Your task to perform on an android device: turn on javascript in the chrome app Image 0: 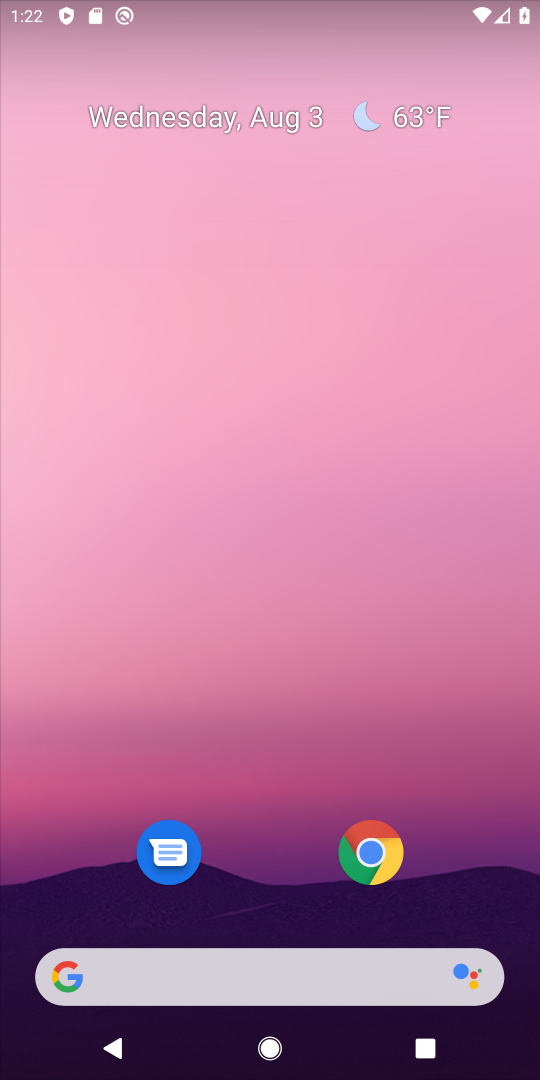
Step 0: press home button
Your task to perform on an android device: turn on javascript in the chrome app Image 1: 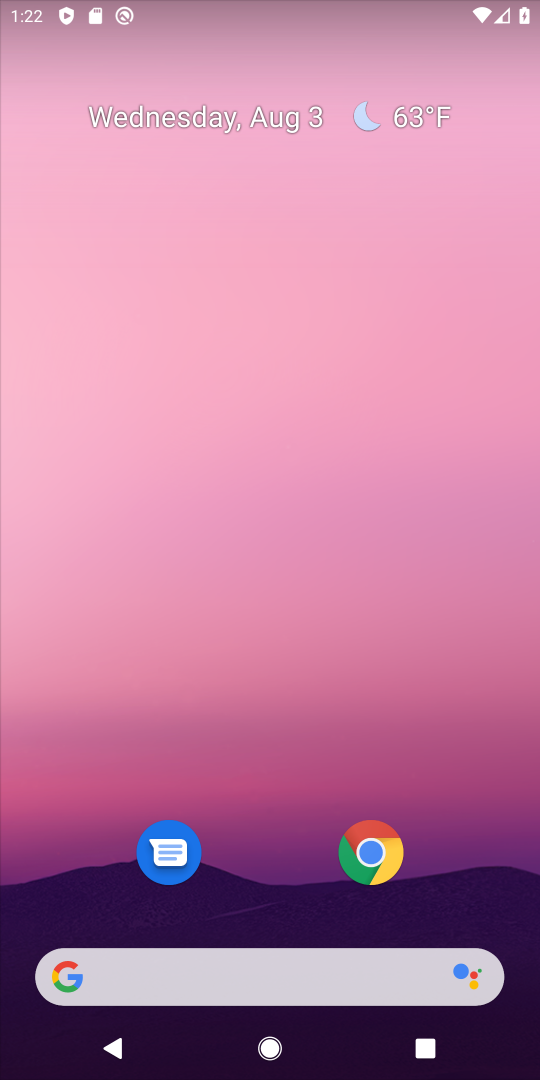
Step 1: click (375, 849)
Your task to perform on an android device: turn on javascript in the chrome app Image 2: 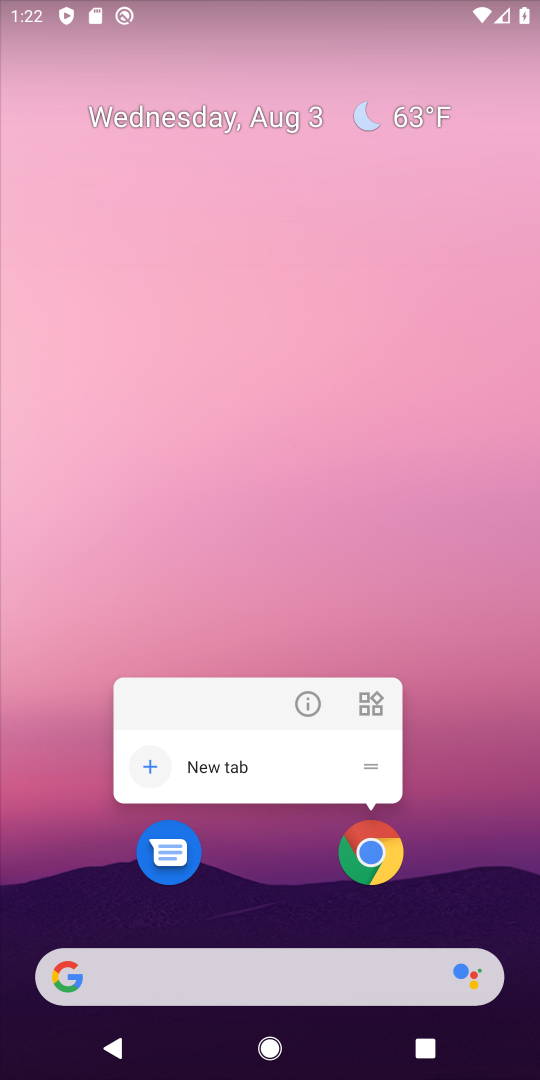
Step 2: click (382, 852)
Your task to perform on an android device: turn on javascript in the chrome app Image 3: 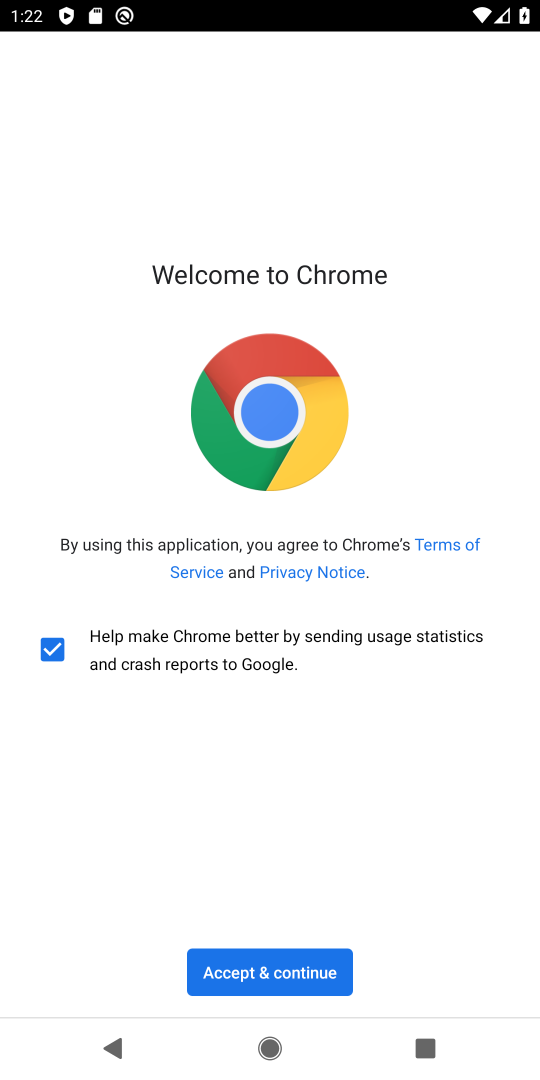
Step 3: click (284, 970)
Your task to perform on an android device: turn on javascript in the chrome app Image 4: 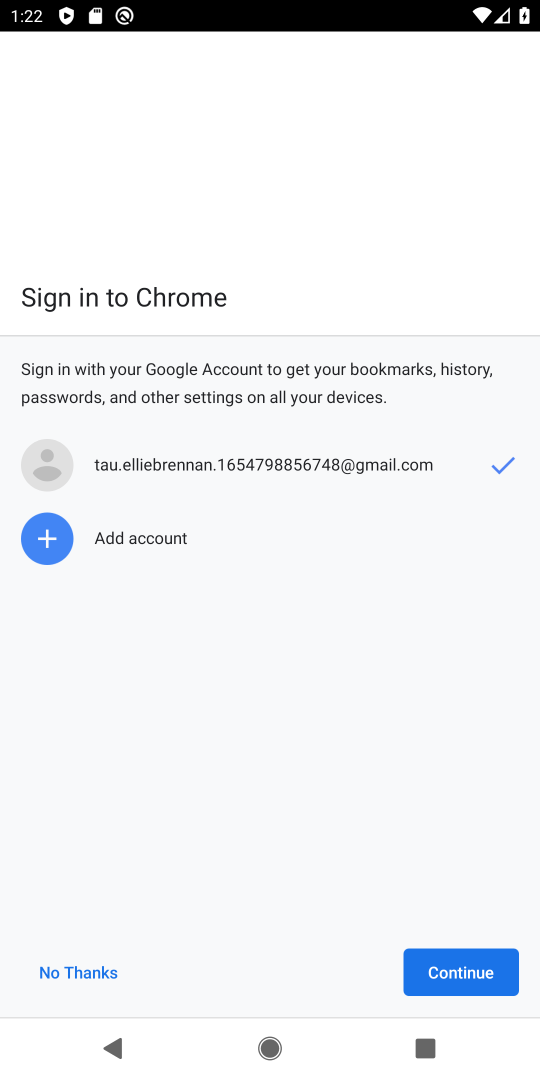
Step 4: click (477, 966)
Your task to perform on an android device: turn on javascript in the chrome app Image 5: 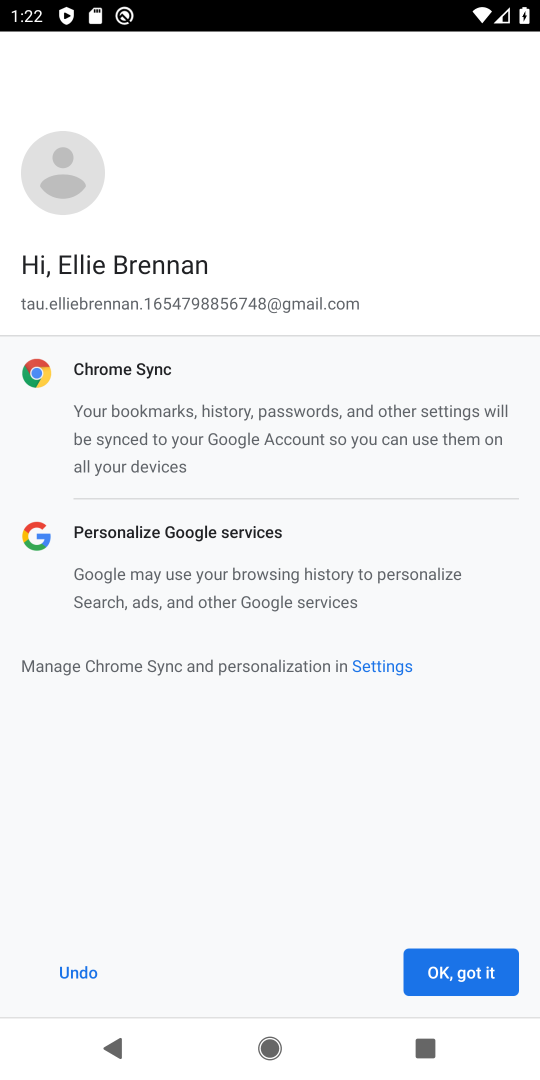
Step 5: click (468, 971)
Your task to perform on an android device: turn on javascript in the chrome app Image 6: 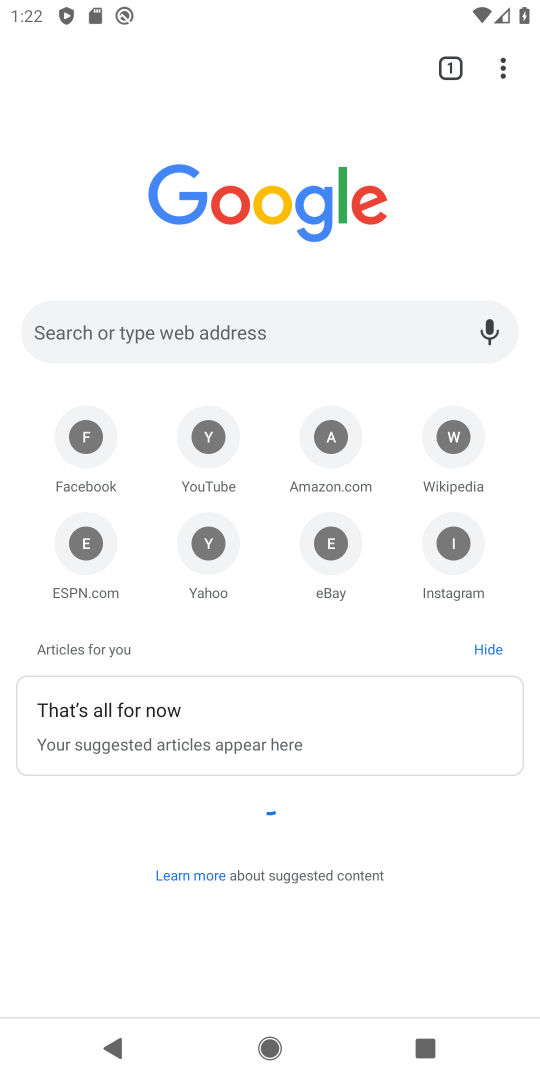
Step 6: drag from (497, 60) to (328, 582)
Your task to perform on an android device: turn on javascript in the chrome app Image 7: 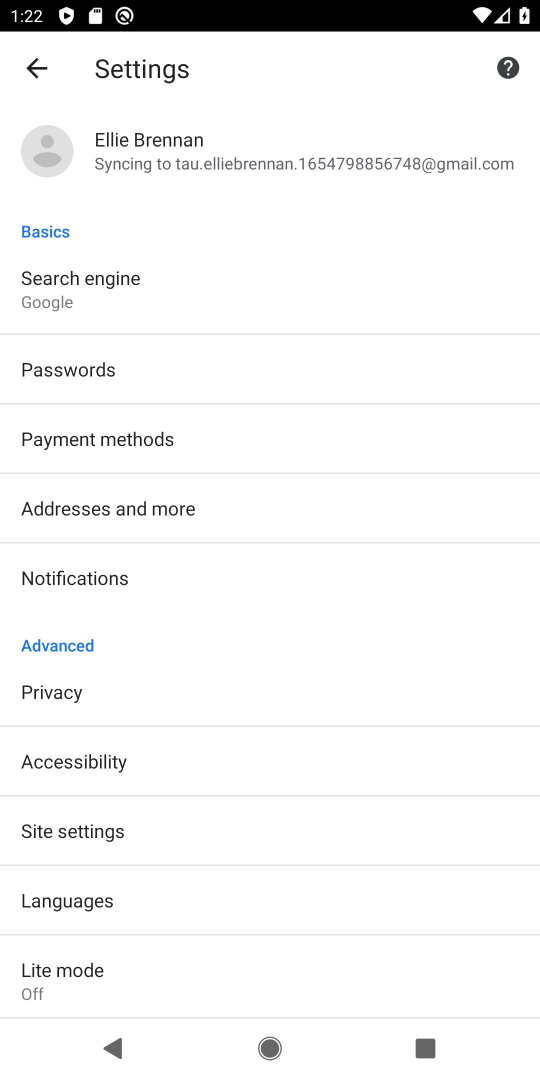
Step 7: drag from (198, 893) to (320, 566)
Your task to perform on an android device: turn on javascript in the chrome app Image 8: 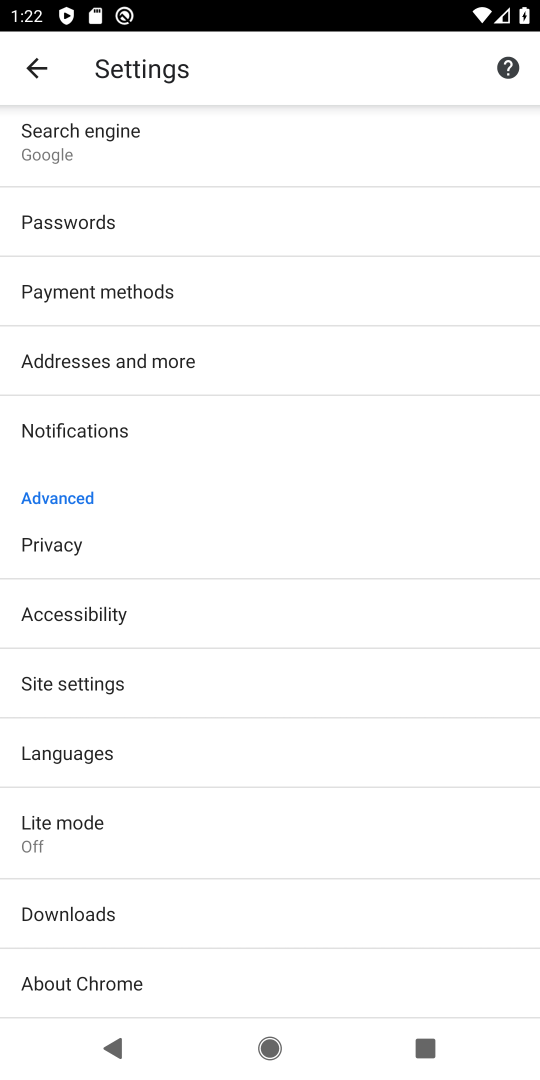
Step 8: click (94, 688)
Your task to perform on an android device: turn on javascript in the chrome app Image 9: 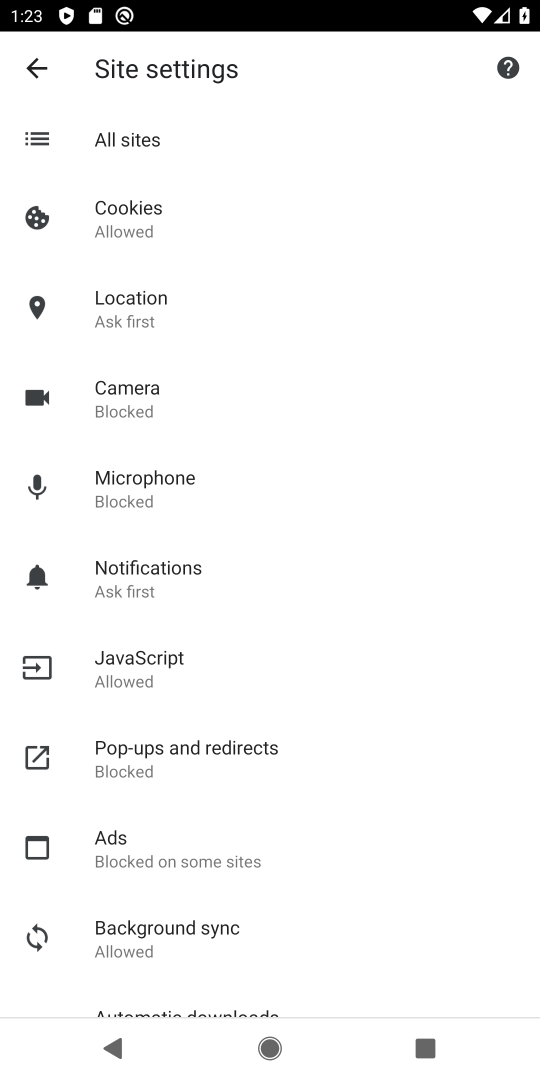
Step 9: click (130, 672)
Your task to perform on an android device: turn on javascript in the chrome app Image 10: 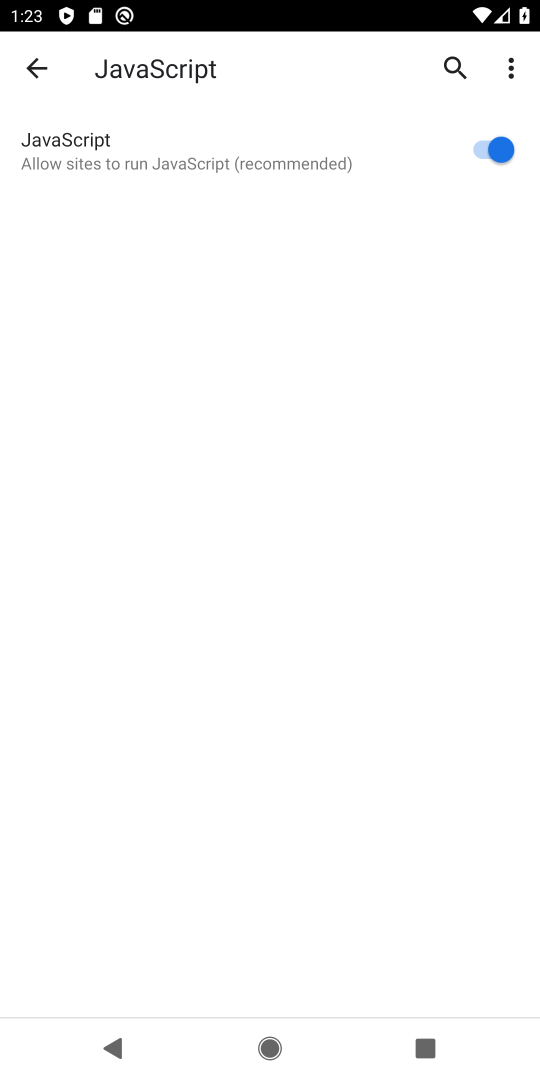
Step 10: task complete